Your task to perform on an android device: turn on priority inbox in the gmail app Image 0: 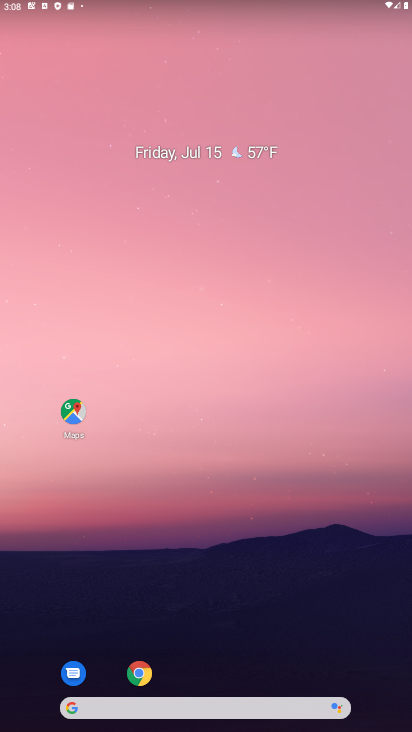
Step 0: drag from (395, 696) to (372, 222)
Your task to perform on an android device: turn on priority inbox in the gmail app Image 1: 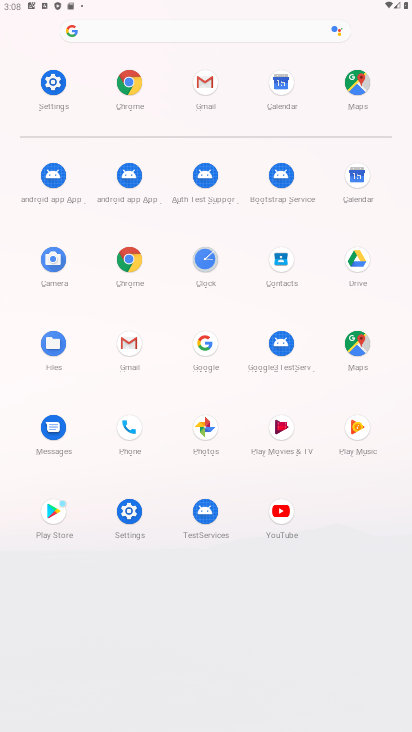
Step 1: click (126, 343)
Your task to perform on an android device: turn on priority inbox in the gmail app Image 2: 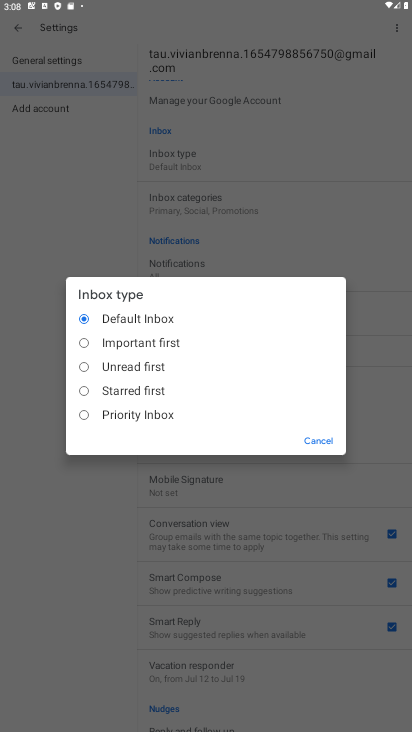
Step 2: click (86, 416)
Your task to perform on an android device: turn on priority inbox in the gmail app Image 3: 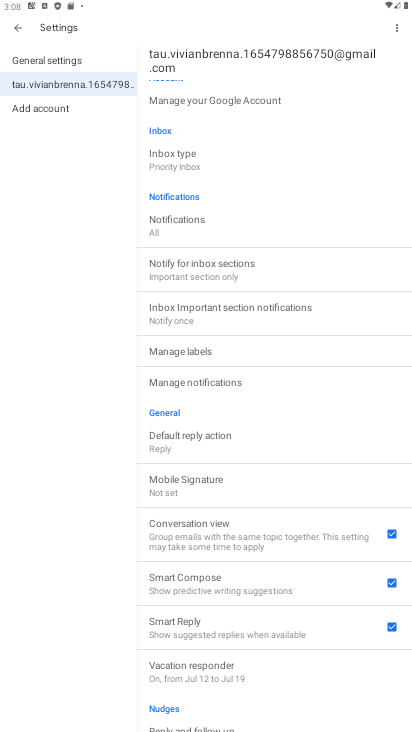
Step 3: task complete